Your task to perform on an android device: Search for Mexican restaurants on Maps Image 0: 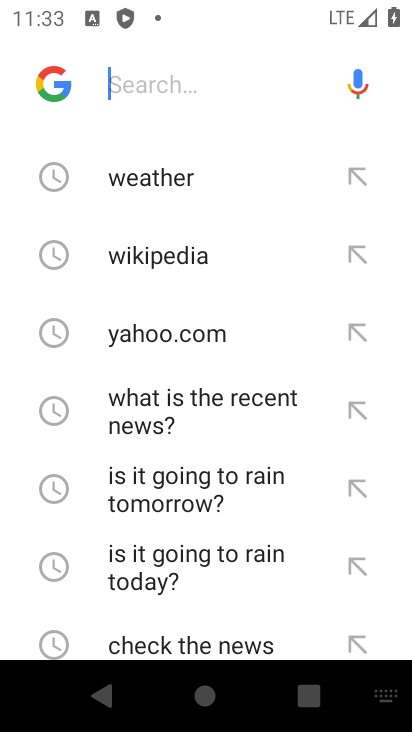
Step 0: press home button
Your task to perform on an android device: Search for Mexican restaurants on Maps Image 1: 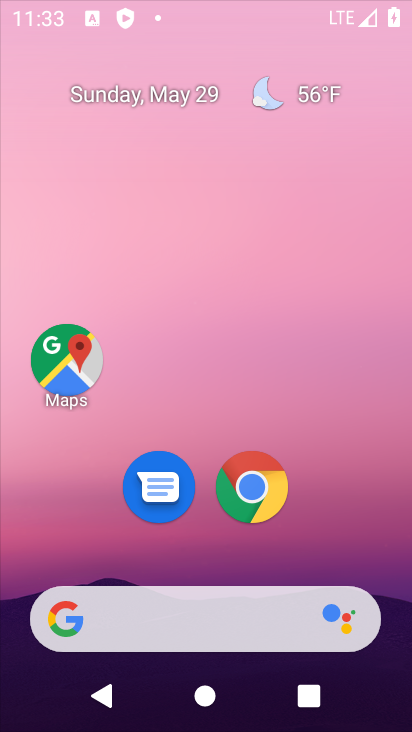
Step 1: drag from (200, 645) to (261, 176)
Your task to perform on an android device: Search for Mexican restaurants on Maps Image 2: 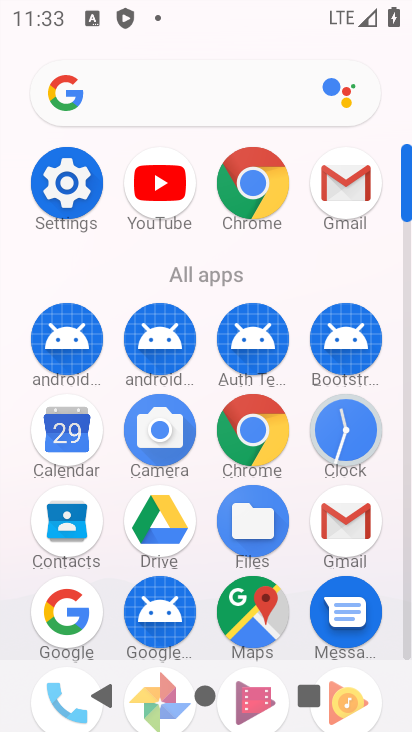
Step 2: click (255, 610)
Your task to perform on an android device: Search for Mexican restaurants on Maps Image 3: 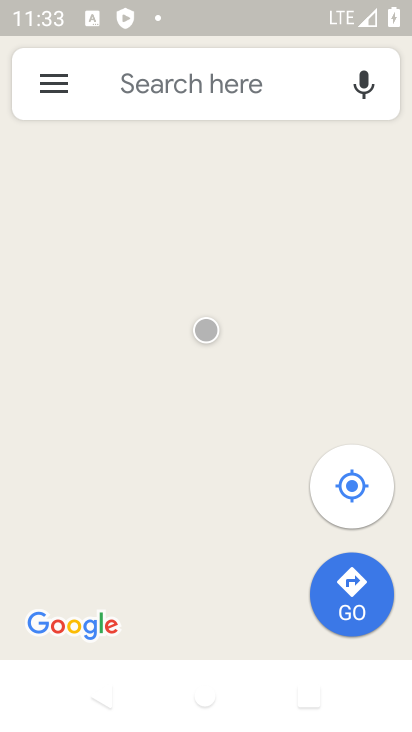
Step 3: click (180, 89)
Your task to perform on an android device: Search for Mexican restaurants on Maps Image 4: 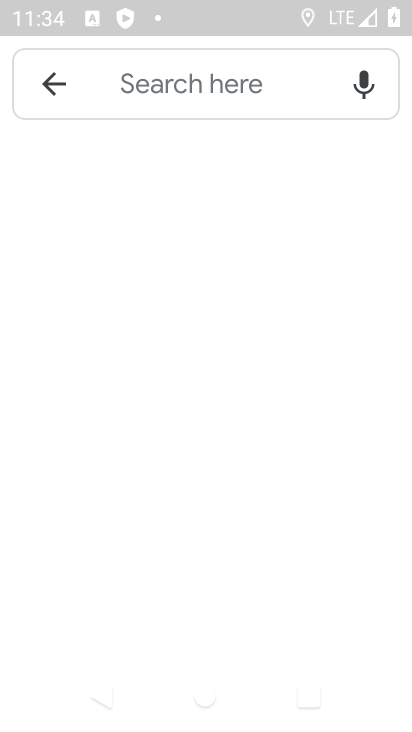
Step 4: click (257, 91)
Your task to perform on an android device: Search for Mexican restaurants on Maps Image 5: 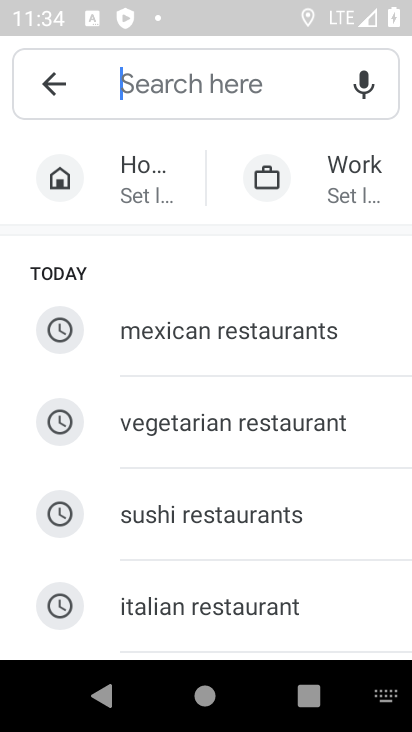
Step 5: type "mexican"
Your task to perform on an android device: Search for Mexican restaurants on Maps Image 6: 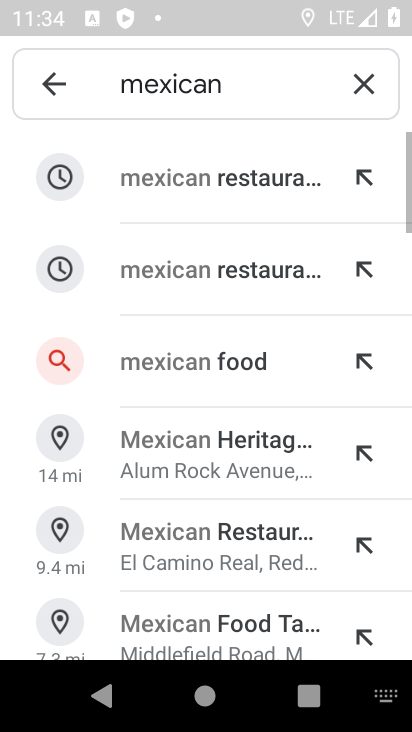
Step 6: click (293, 171)
Your task to perform on an android device: Search for Mexican restaurants on Maps Image 7: 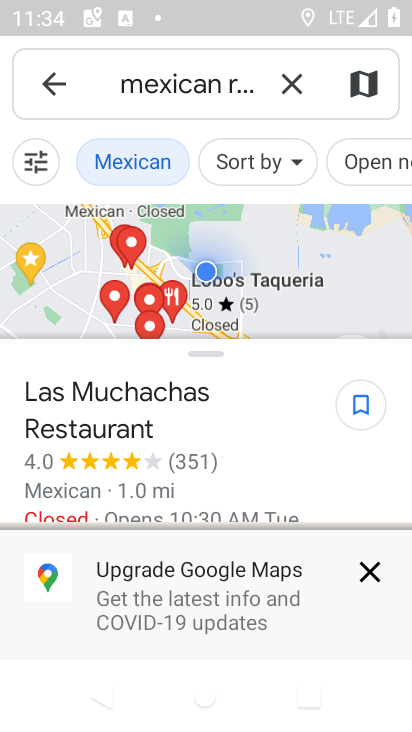
Step 7: task complete